Your task to perform on an android device: Open Yahoo.com Image 0: 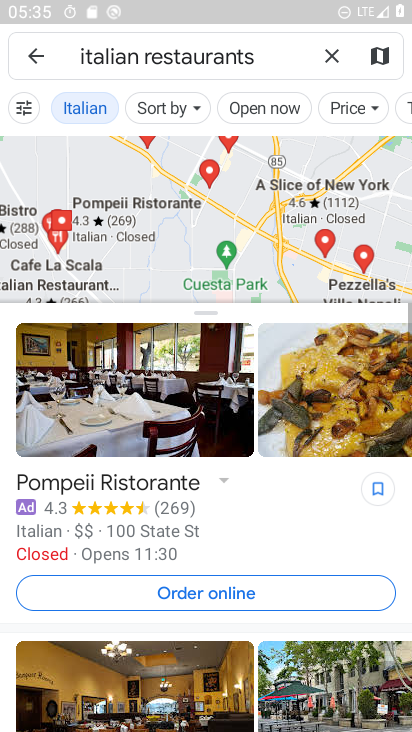
Step 0: drag from (212, 533) to (278, 104)
Your task to perform on an android device: Open Yahoo.com Image 1: 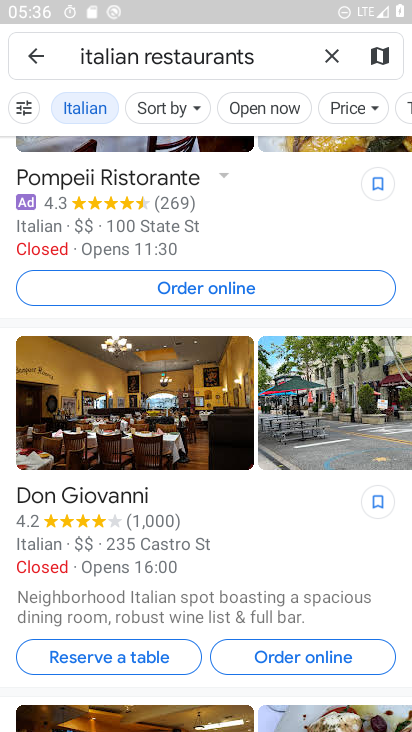
Step 1: press home button
Your task to perform on an android device: Open Yahoo.com Image 2: 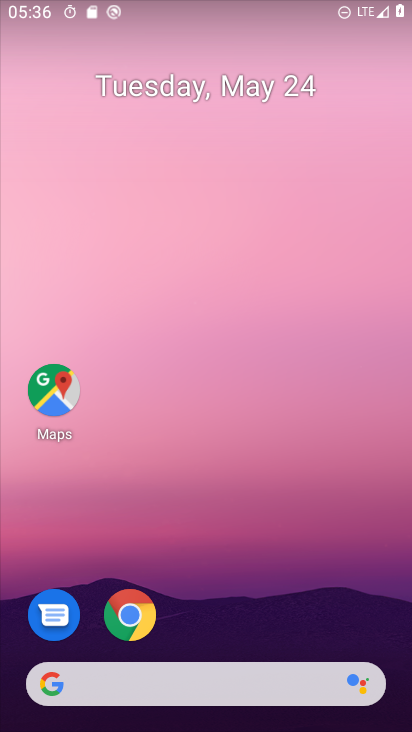
Step 2: click (135, 600)
Your task to perform on an android device: Open Yahoo.com Image 3: 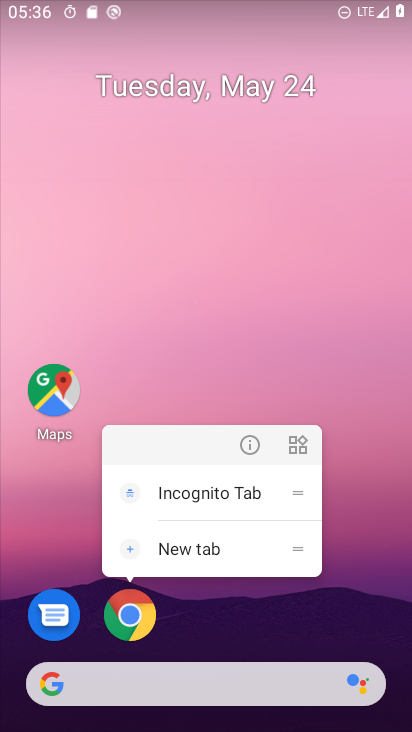
Step 3: click (131, 620)
Your task to perform on an android device: Open Yahoo.com Image 4: 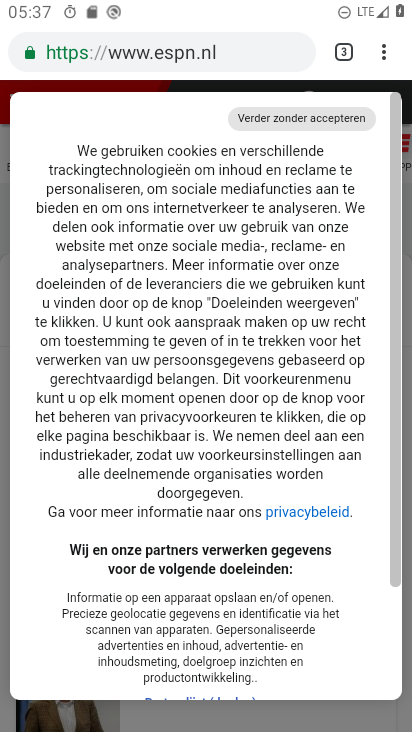
Step 4: click (342, 49)
Your task to perform on an android device: Open Yahoo.com Image 5: 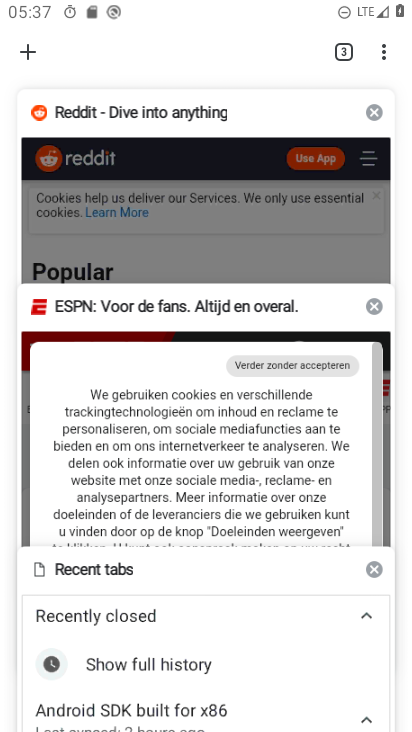
Step 5: click (20, 40)
Your task to perform on an android device: Open Yahoo.com Image 6: 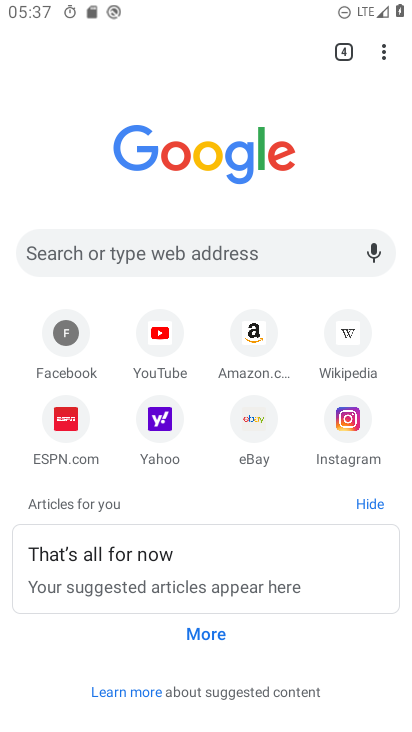
Step 6: click (156, 416)
Your task to perform on an android device: Open Yahoo.com Image 7: 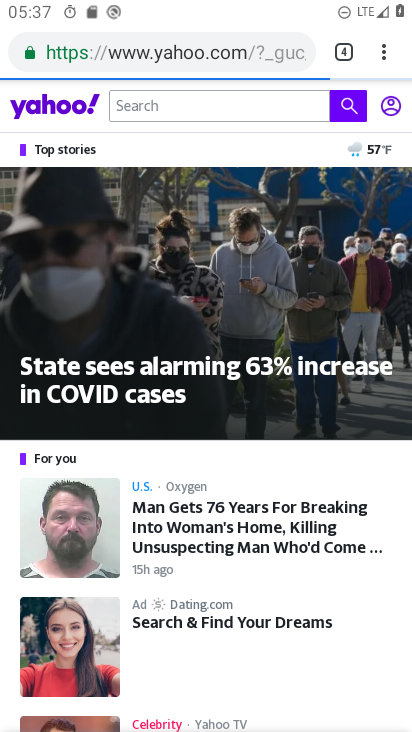
Step 7: task complete